Your task to perform on an android device: Is it going to rain today? Image 0: 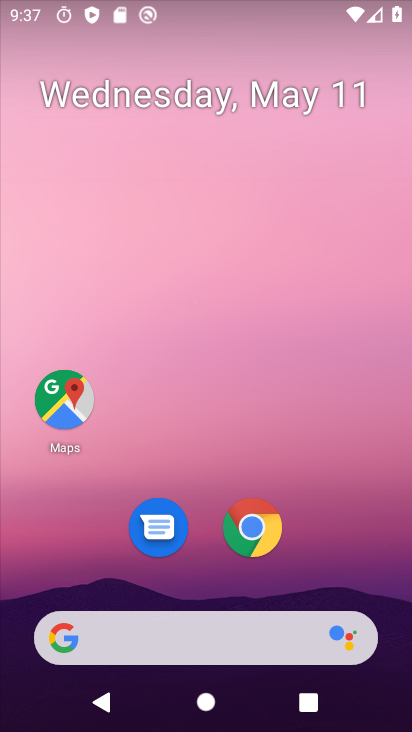
Step 0: drag from (216, 637) to (207, 79)
Your task to perform on an android device: Is it going to rain today? Image 1: 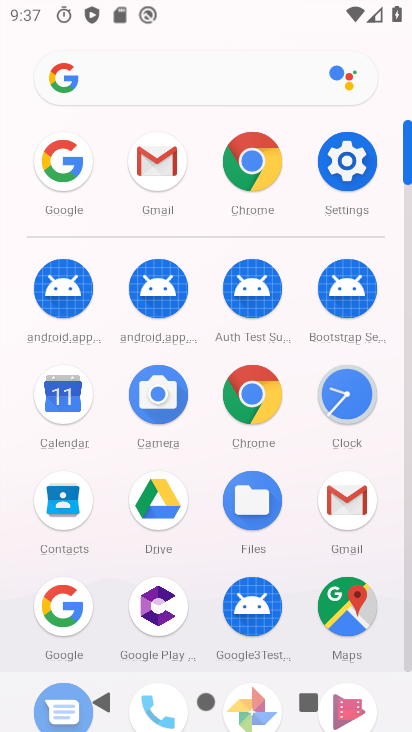
Step 1: click (79, 609)
Your task to perform on an android device: Is it going to rain today? Image 2: 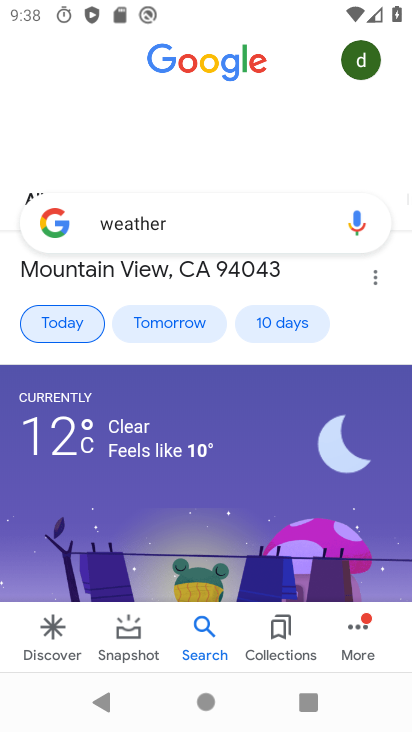
Step 2: task complete